Your task to perform on an android device: Set the phone to "Do not disturb". Image 0: 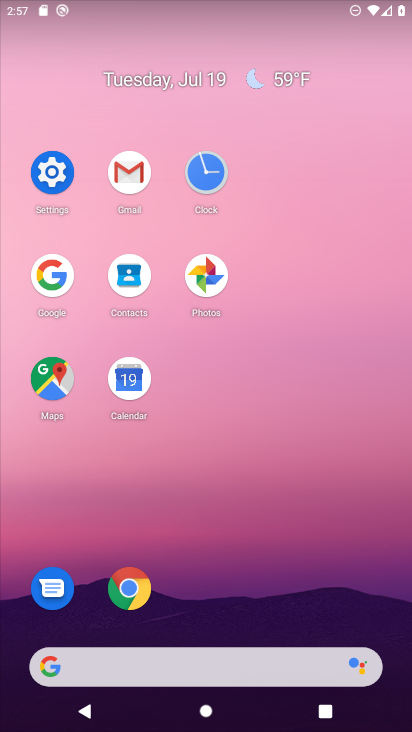
Step 0: click (42, 173)
Your task to perform on an android device: Set the phone to "Do not disturb". Image 1: 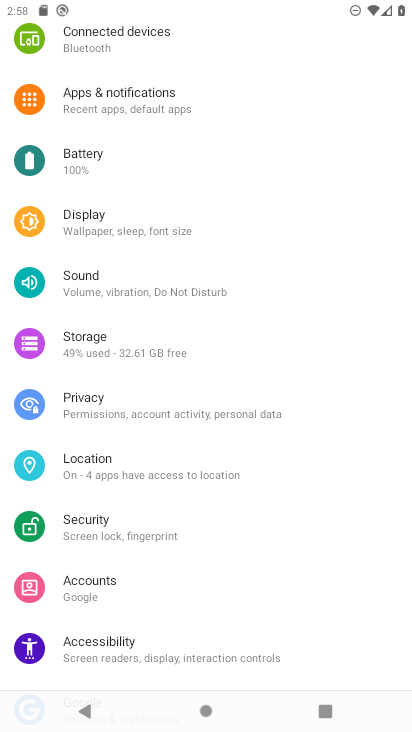
Step 1: click (148, 282)
Your task to perform on an android device: Set the phone to "Do not disturb". Image 2: 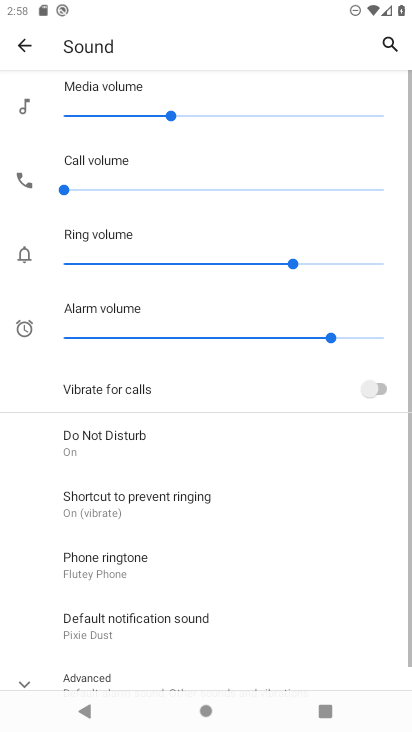
Step 2: click (192, 433)
Your task to perform on an android device: Set the phone to "Do not disturb". Image 3: 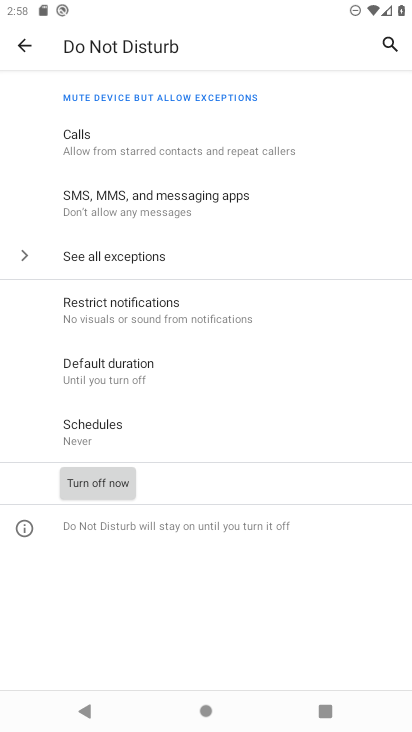
Step 3: task complete